Your task to perform on an android device: Open sound settings Image 0: 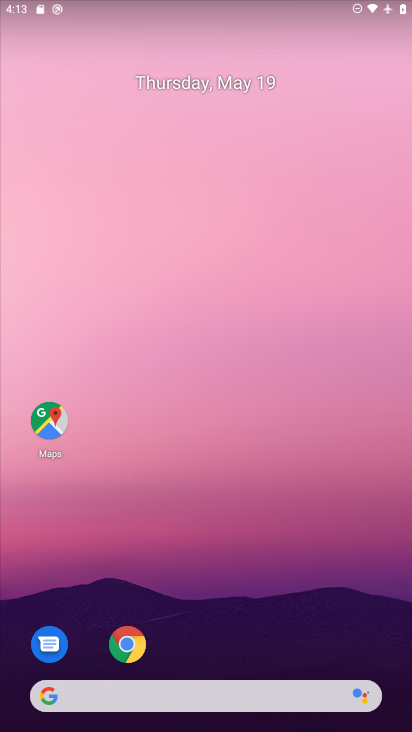
Step 0: drag from (306, 593) to (250, 4)
Your task to perform on an android device: Open sound settings Image 1: 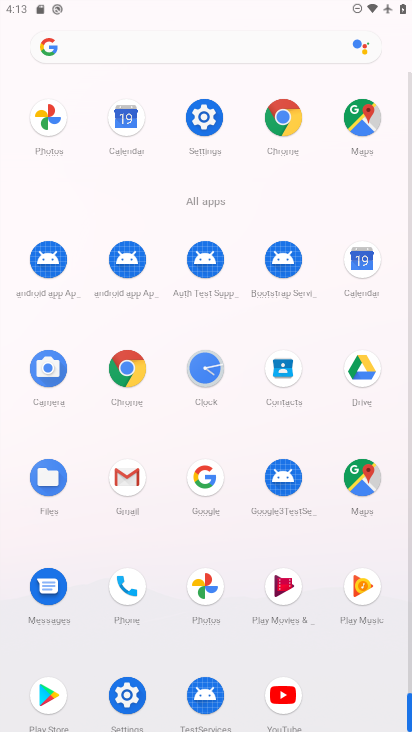
Step 1: drag from (10, 558) to (0, 349)
Your task to perform on an android device: Open sound settings Image 2: 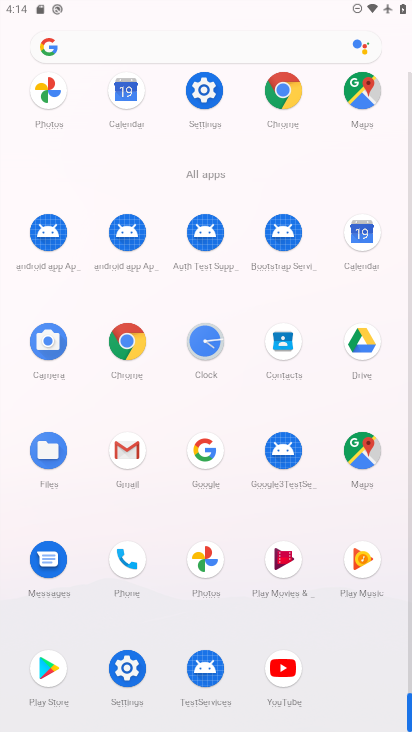
Step 2: click (129, 666)
Your task to perform on an android device: Open sound settings Image 3: 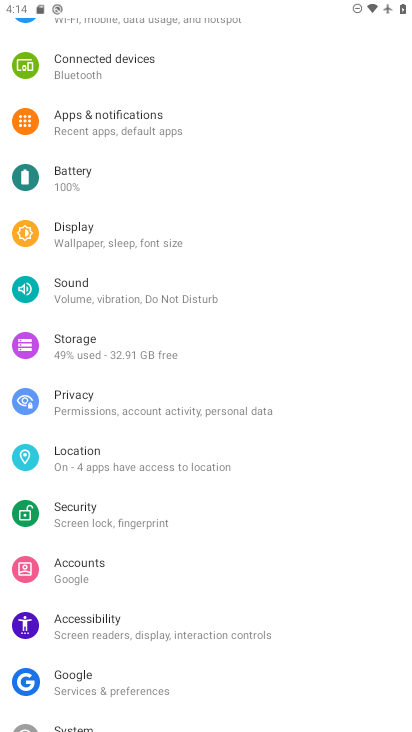
Step 3: click (94, 305)
Your task to perform on an android device: Open sound settings Image 4: 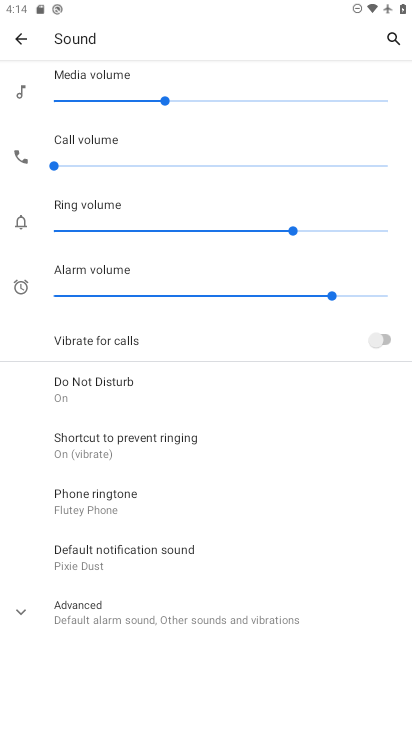
Step 4: drag from (172, 196) to (237, 577)
Your task to perform on an android device: Open sound settings Image 5: 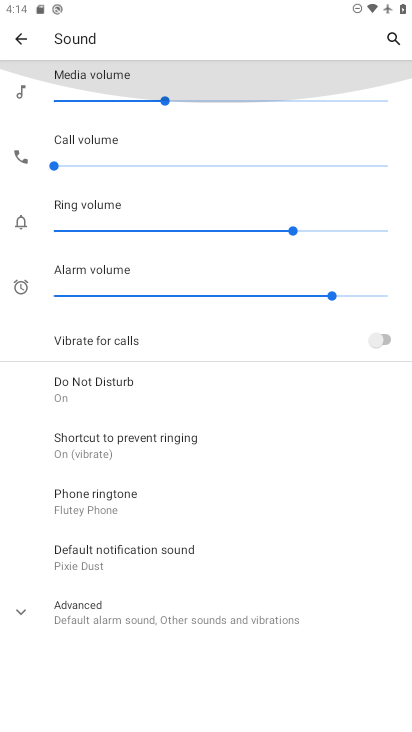
Step 5: drag from (236, 578) to (209, 231)
Your task to perform on an android device: Open sound settings Image 6: 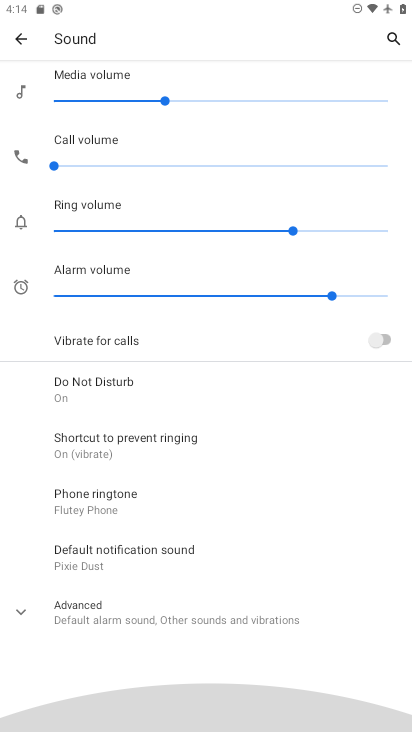
Step 6: click (35, 597)
Your task to perform on an android device: Open sound settings Image 7: 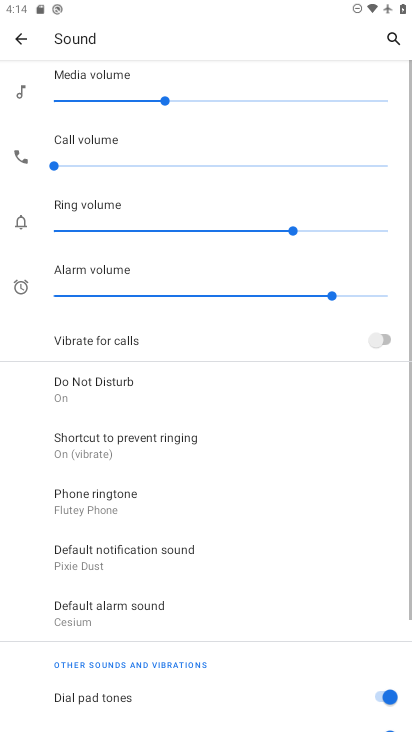
Step 7: task complete